Your task to perform on an android device: Open calendar and show me the fourth week of next month Image 0: 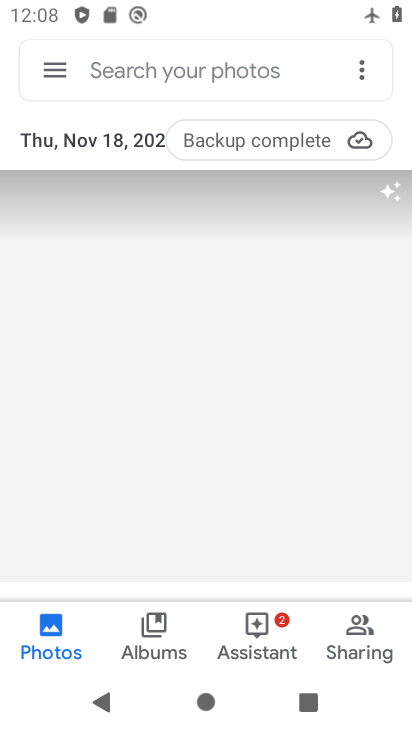
Step 0: press home button
Your task to perform on an android device: Open calendar and show me the fourth week of next month Image 1: 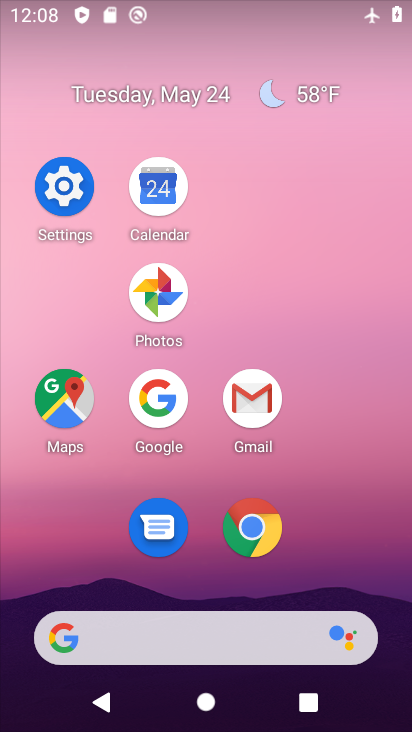
Step 1: click (163, 205)
Your task to perform on an android device: Open calendar and show me the fourth week of next month Image 2: 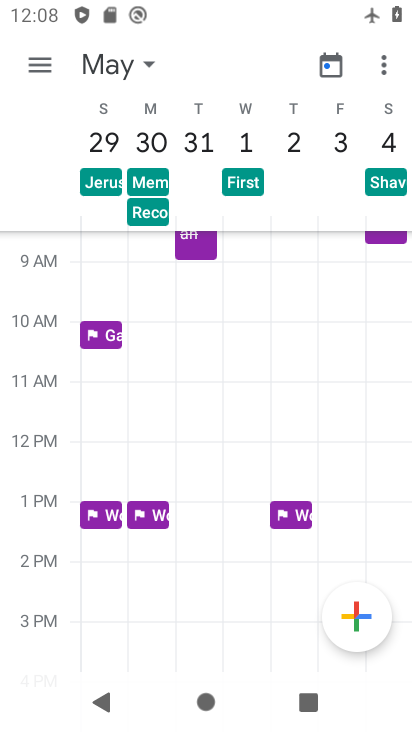
Step 2: click (143, 47)
Your task to perform on an android device: Open calendar and show me the fourth week of next month Image 3: 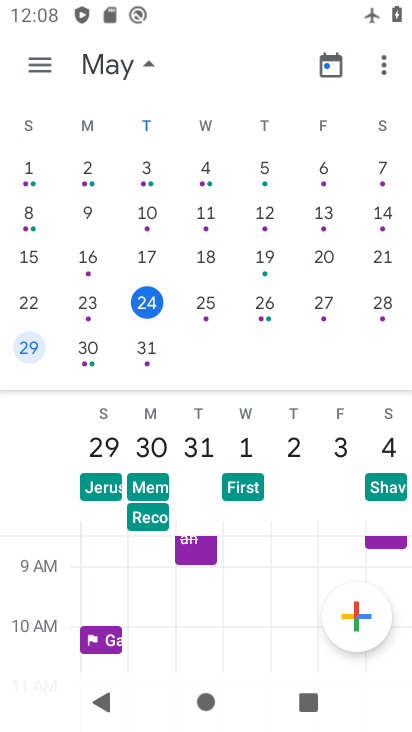
Step 3: drag from (392, 257) to (23, 286)
Your task to perform on an android device: Open calendar and show me the fourth week of next month Image 4: 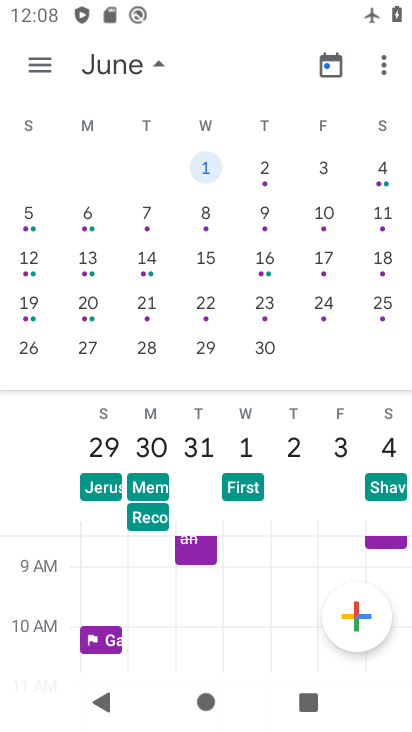
Step 4: click (43, 76)
Your task to perform on an android device: Open calendar and show me the fourth week of next month Image 5: 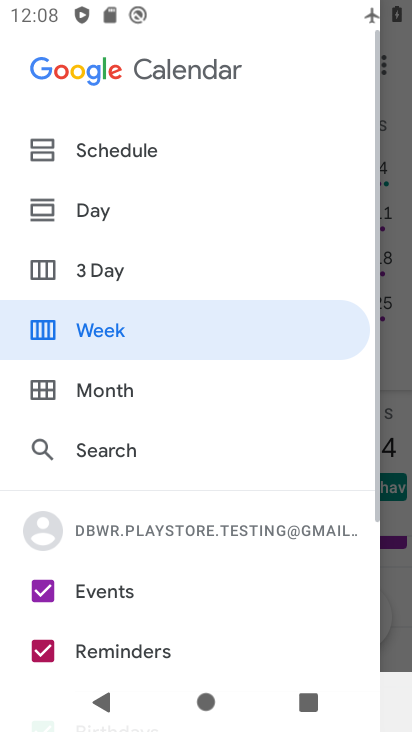
Step 5: click (125, 328)
Your task to perform on an android device: Open calendar and show me the fourth week of next month Image 6: 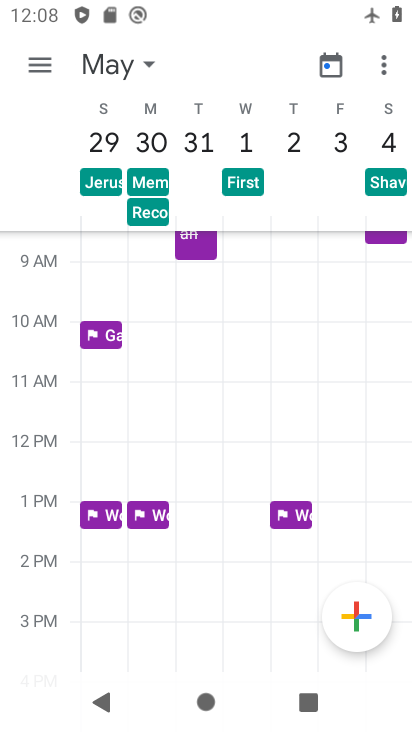
Step 6: task complete